Your task to perform on an android device: toggle pop-ups in chrome Image 0: 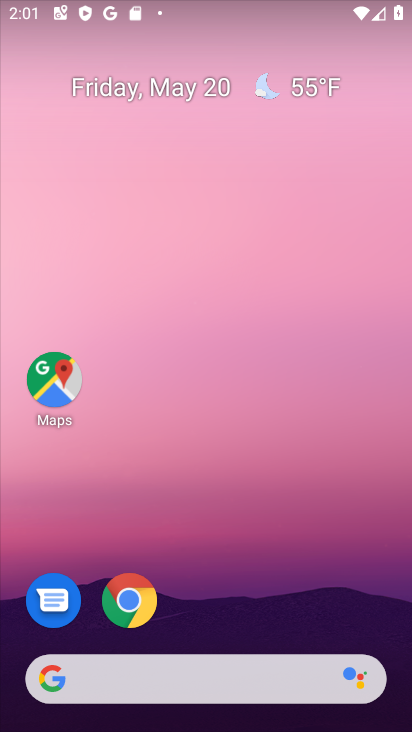
Step 0: drag from (216, 637) to (240, 203)
Your task to perform on an android device: toggle pop-ups in chrome Image 1: 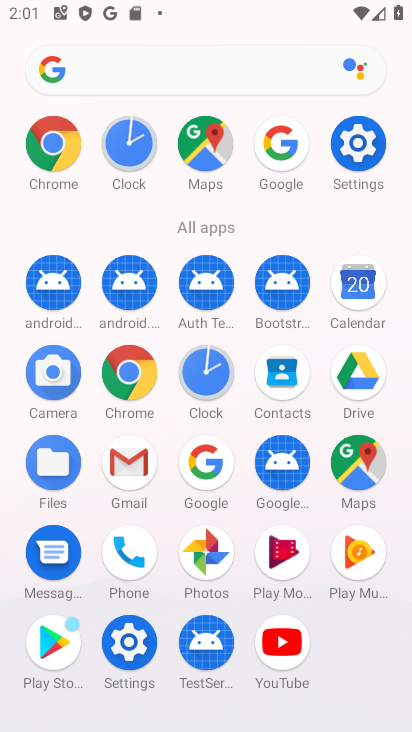
Step 1: click (59, 164)
Your task to perform on an android device: toggle pop-ups in chrome Image 2: 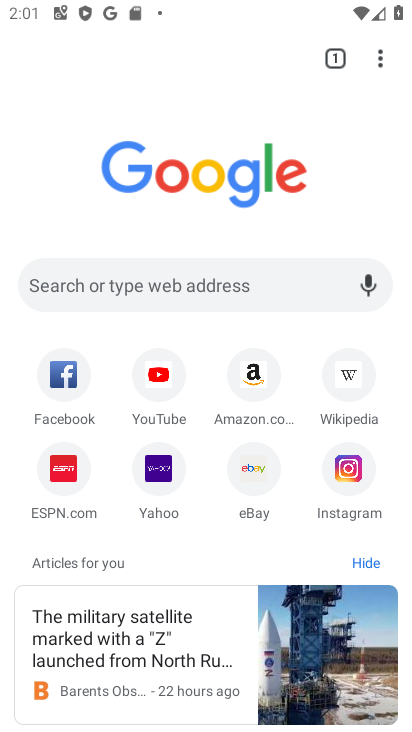
Step 2: click (390, 70)
Your task to perform on an android device: toggle pop-ups in chrome Image 3: 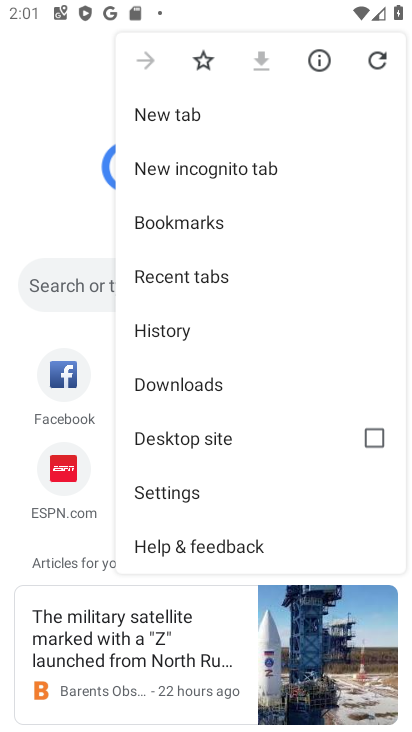
Step 3: drag from (228, 486) to (257, 299)
Your task to perform on an android device: toggle pop-ups in chrome Image 4: 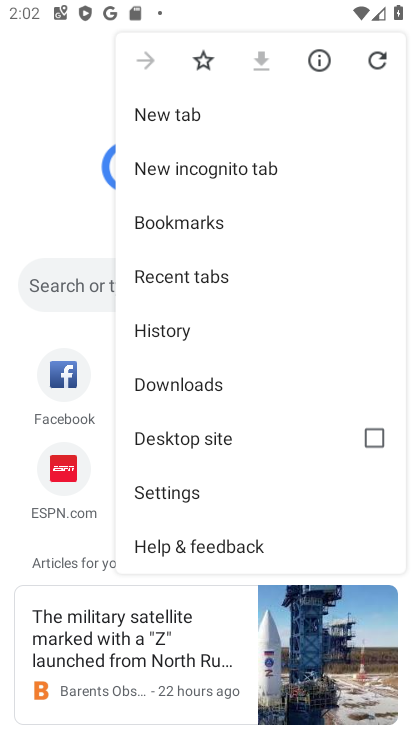
Step 4: click (176, 482)
Your task to perform on an android device: toggle pop-ups in chrome Image 5: 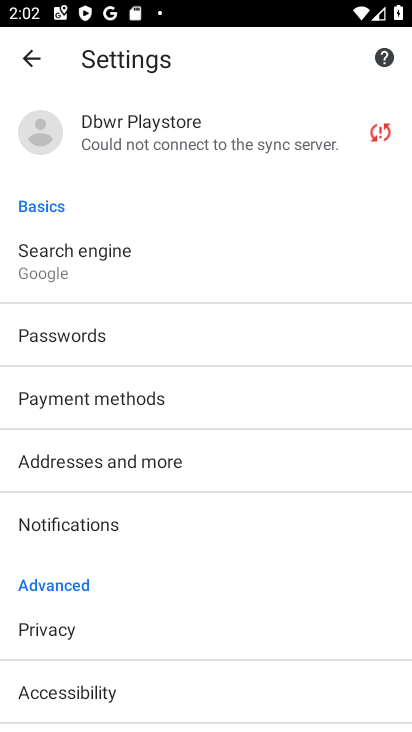
Step 5: drag from (152, 561) to (223, 233)
Your task to perform on an android device: toggle pop-ups in chrome Image 6: 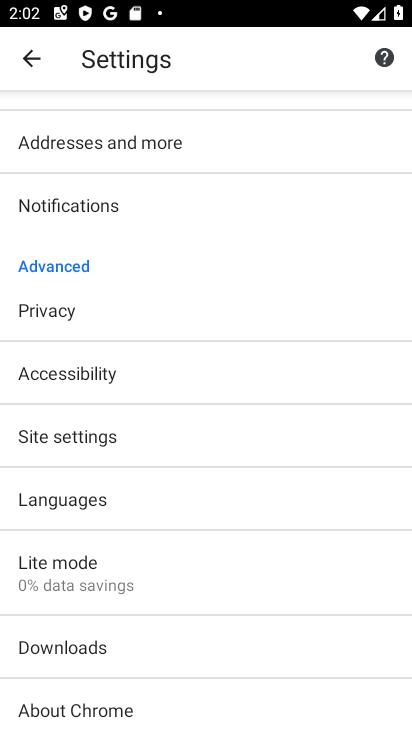
Step 6: click (125, 432)
Your task to perform on an android device: toggle pop-ups in chrome Image 7: 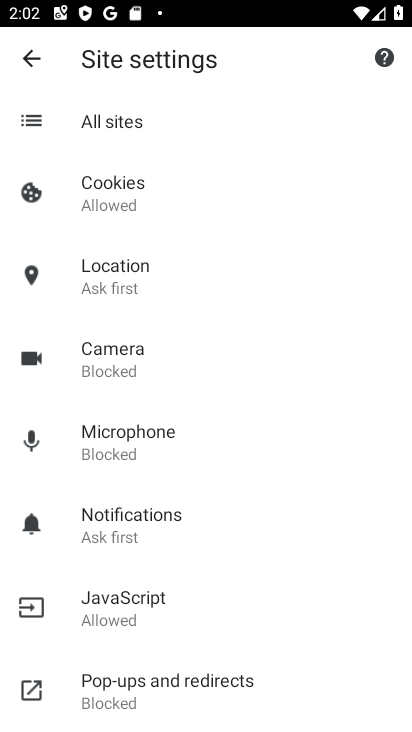
Step 7: click (164, 691)
Your task to perform on an android device: toggle pop-ups in chrome Image 8: 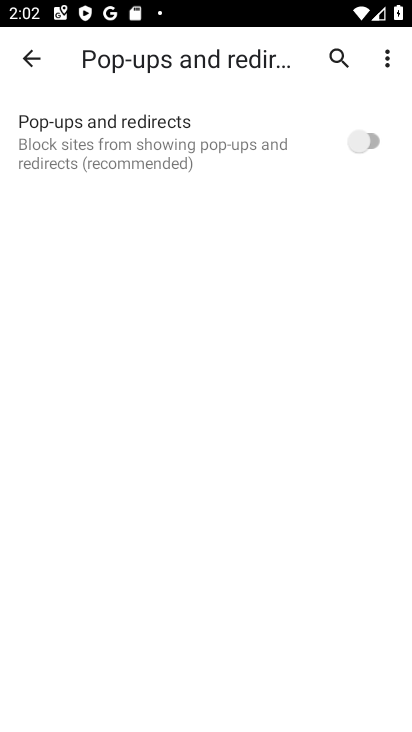
Step 8: click (382, 148)
Your task to perform on an android device: toggle pop-ups in chrome Image 9: 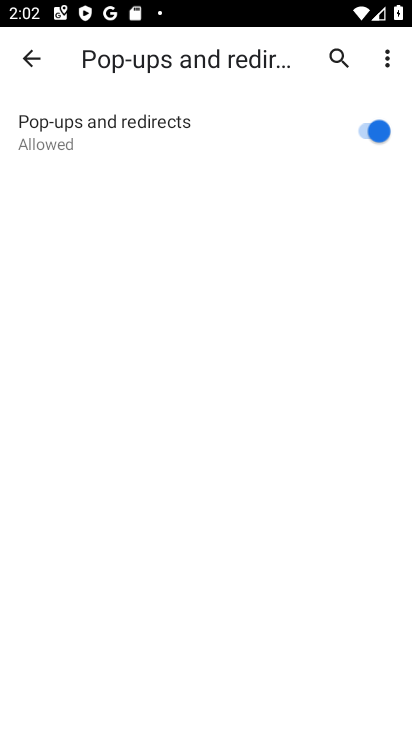
Step 9: task complete